Your task to perform on an android device: Do I have any events this weekend? Image 0: 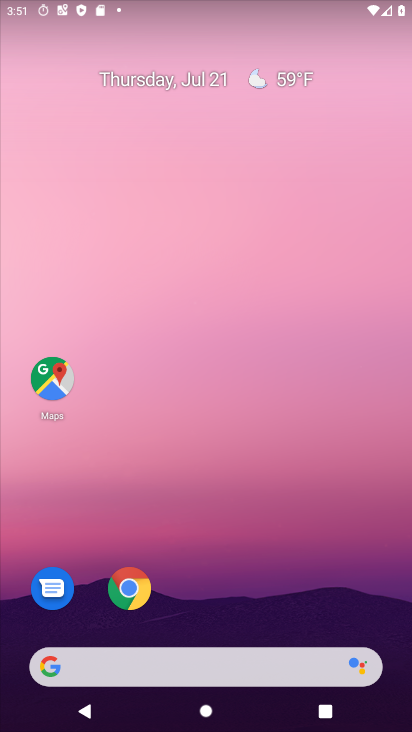
Step 0: drag from (231, 610) to (267, 174)
Your task to perform on an android device: Do I have any events this weekend? Image 1: 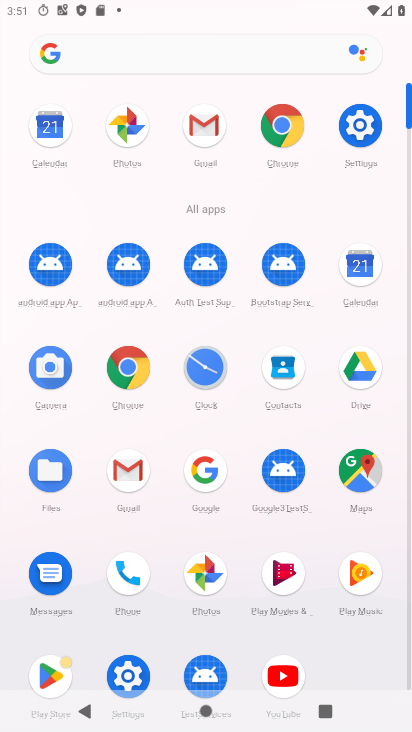
Step 1: click (378, 279)
Your task to perform on an android device: Do I have any events this weekend? Image 2: 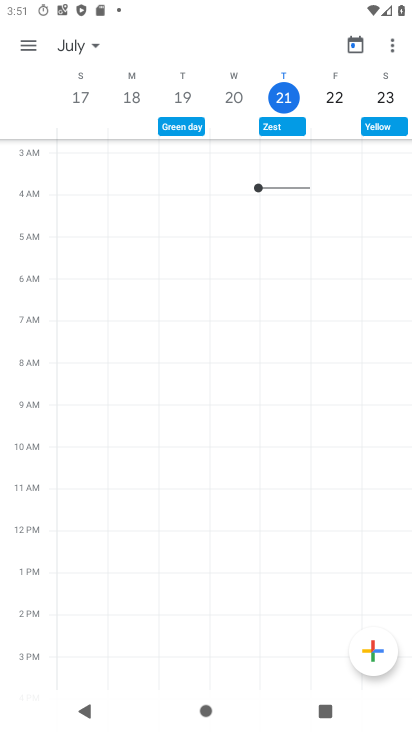
Step 2: click (29, 47)
Your task to perform on an android device: Do I have any events this weekend? Image 3: 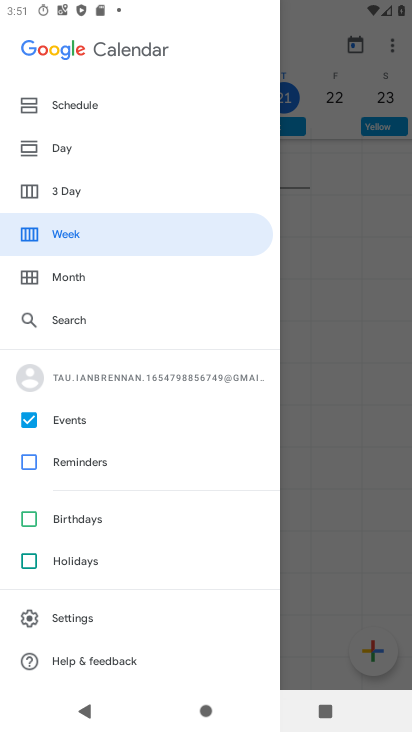
Step 3: click (104, 229)
Your task to perform on an android device: Do I have any events this weekend? Image 4: 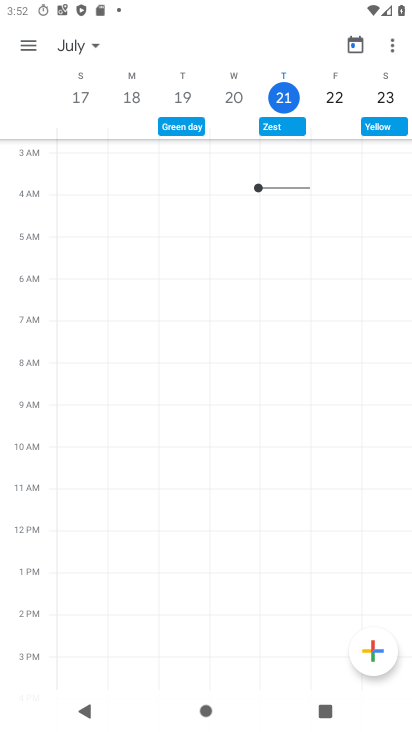
Step 4: task complete